Your task to perform on an android device: change keyboard looks Image 0: 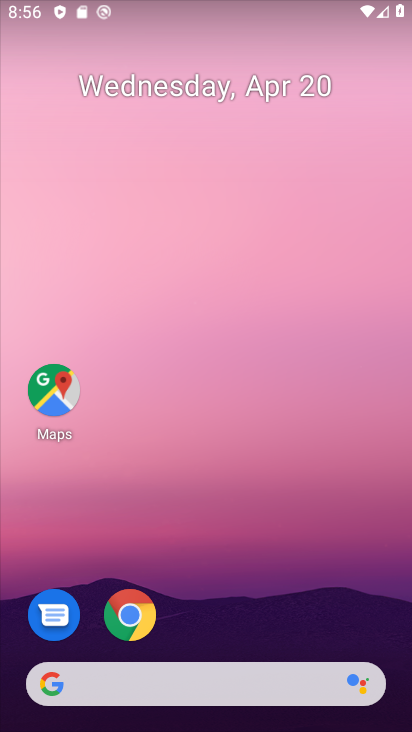
Step 0: drag from (205, 614) to (251, 138)
Your task to perform on an android device: change keyboard looks Image 1: 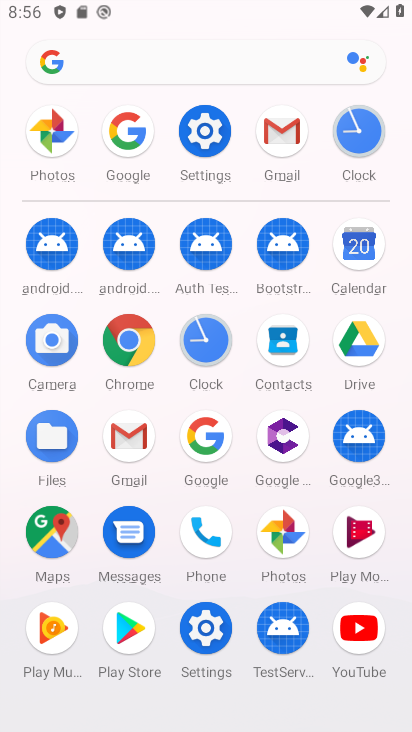
Step 1: click (206, 135)
Your task to perform on an android device: change keyboard looks Image 2: 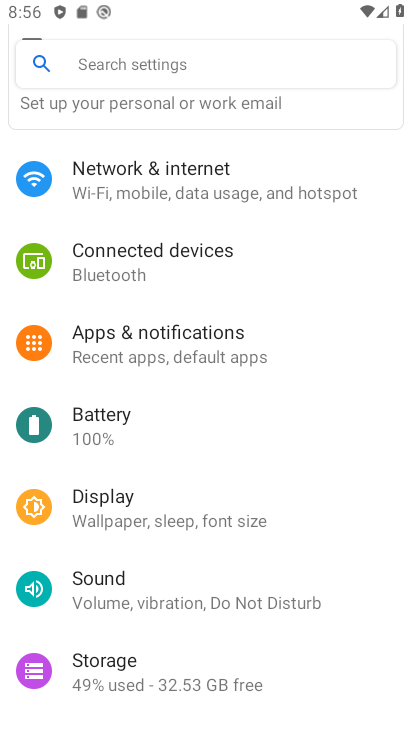
Step 2: drag from (174, 465) to (213, 360)
Your task to perform on an android device: change keyboard looks Image 3: 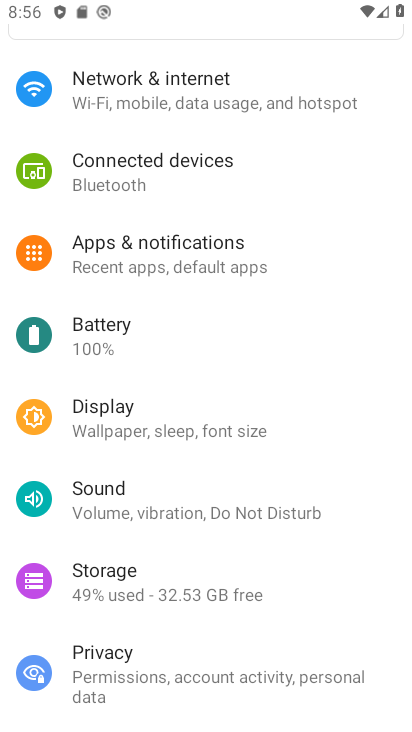
Step 3: drag from (184, 506) to (225, 433)
Your task to perform on an android device: change keyboard looks Image 4: 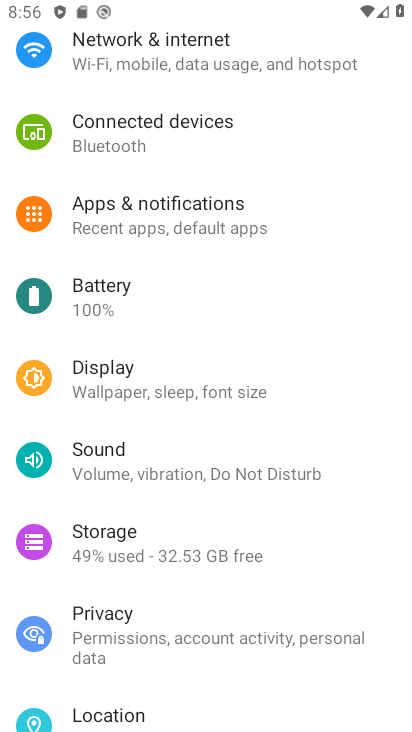
Step 4: drag from (179, 511) to (222, 420)
Your task to perform on an android device: change keyboard looks Image 5: 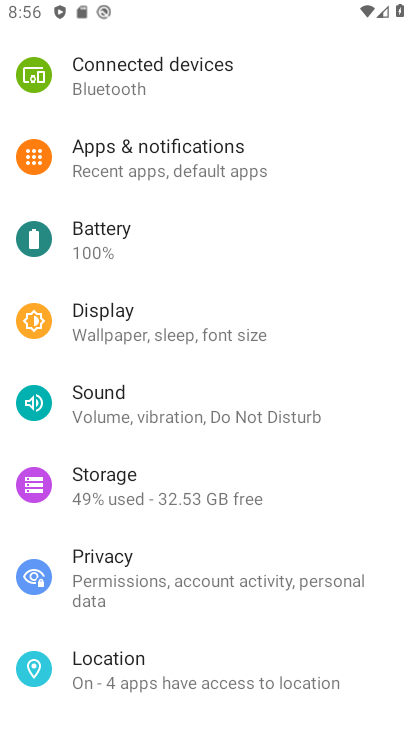
Step 5: drag from (158, 540) to (224, 448)
Your task to perform on an android device: change keyboard looks Image 6: 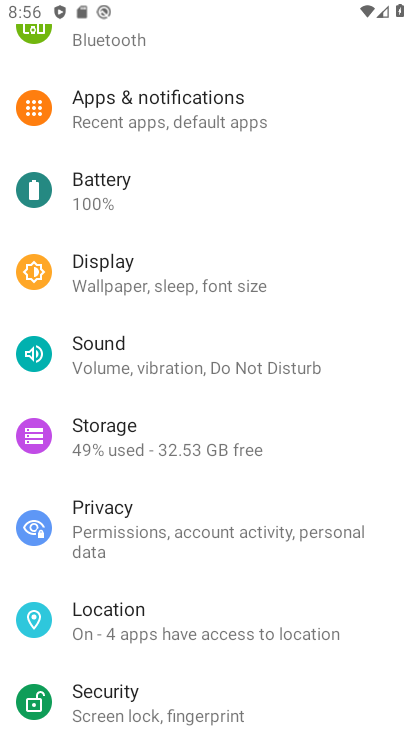
Step 6: drag from (153, 564) to (206, 464)
Your task to perform on an android device: change keyboard looks Image 7: 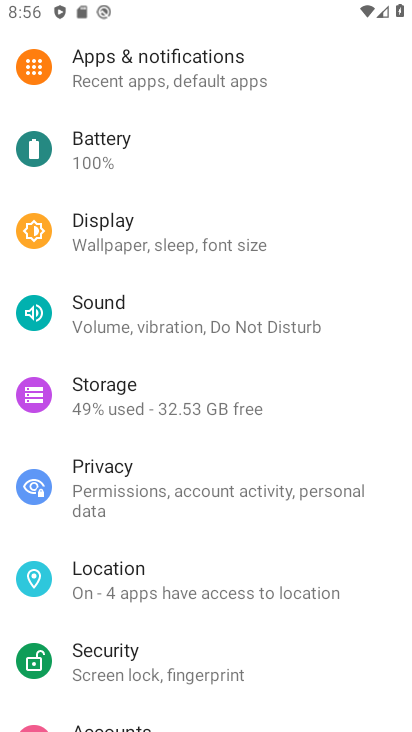
Step 7: drag from (156, 551) to (235, 441)
Your task to perform on an android device: change keyboard looks Image 8: 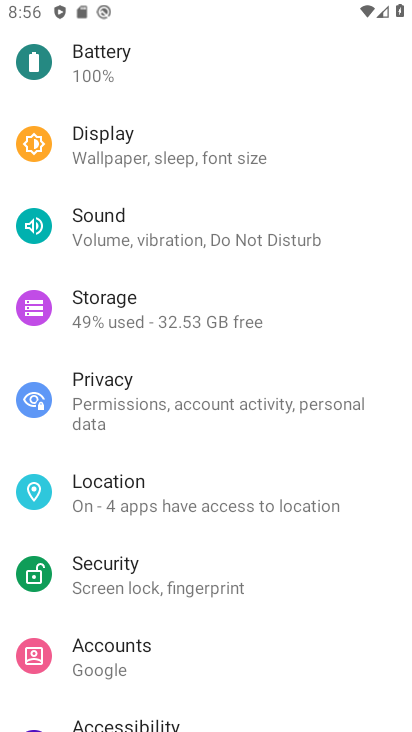
Step 8: drag from (167, 553) to (214, 475)
Your task to perform on an android device: change keyboard looks Image 9: 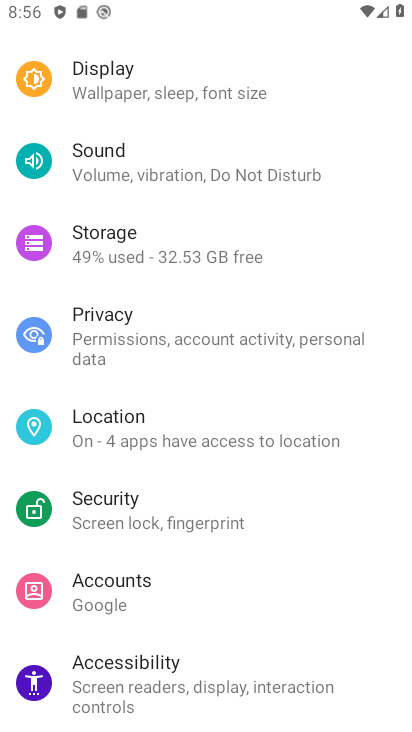
Step 9: drag from (190, 555) to (254, 464)
Your task to perform on an android device: change keyboard looks Image 10: 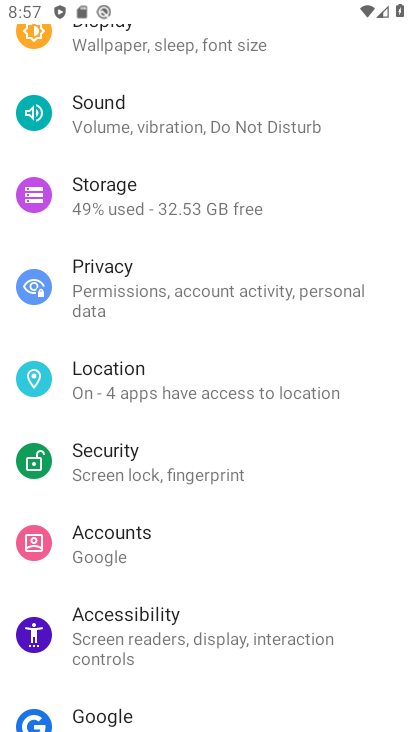
Step 10: drag from (144, 584) to (215, 496)
Your task to perform on an android device: change keyboard looks Image 11: 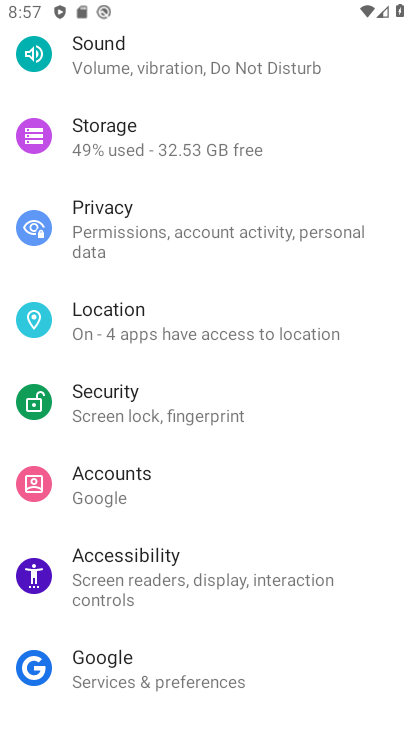
Step 11: drag from (144, 621) to (206, 509)
Your task to perform on an android device: change keyboard looks Image 12: 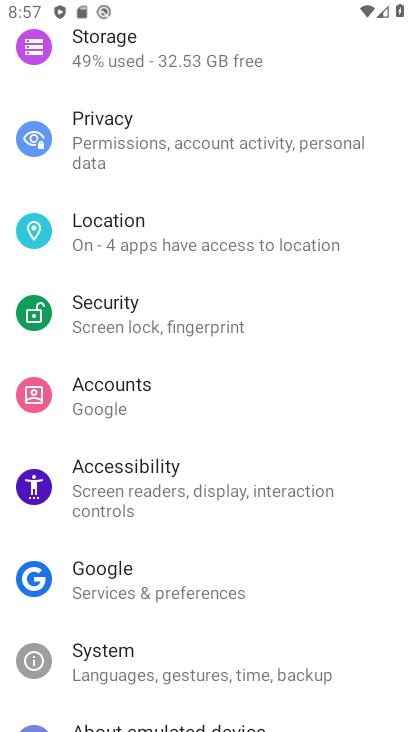
Step 12: drag from (163, 569) to (251, 468)
Your task to perform on an android device: change keyboard looks Image 13: 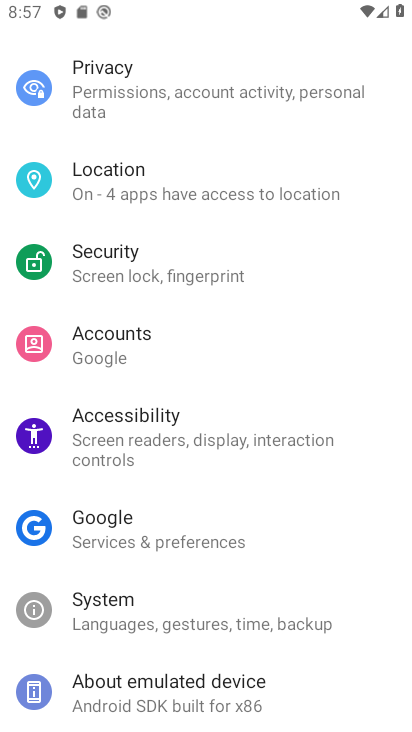
Step 13: click (156, 624)
Your task to perform on an android device: change keyboard looks Image 14: 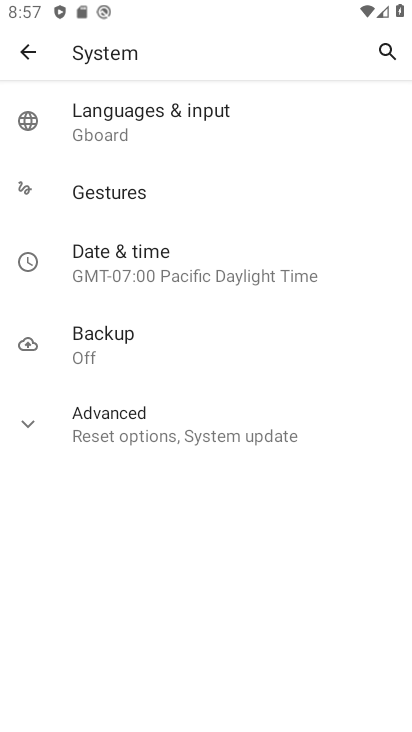
Step 14: click (203, 114)
Your task to perform on an android device: change keyboard looks Image 15: 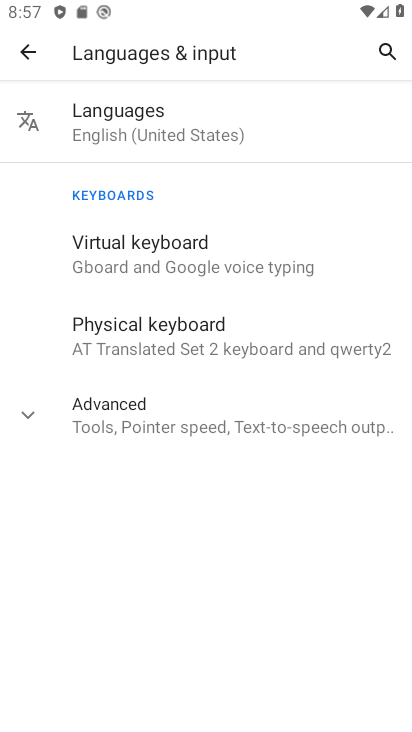
Step 15: click (147, 251)
Your task to perform on an android device: change keyboard looks Image 16: 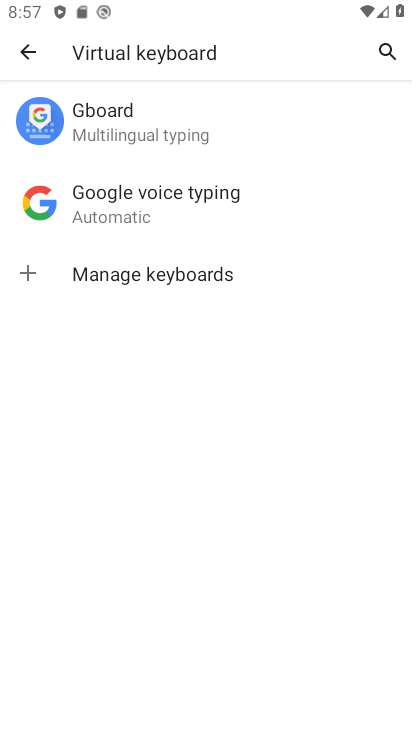
Step 16: click (136, 141)
Your task to perform on an android device: change keyboard looks Image 17: 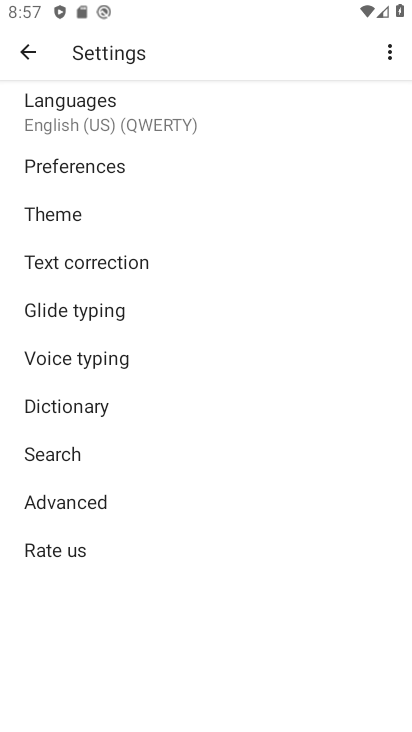
Step 17: click (58, 216)
Your task to perform on an android device: change keyboard looks Image 18: 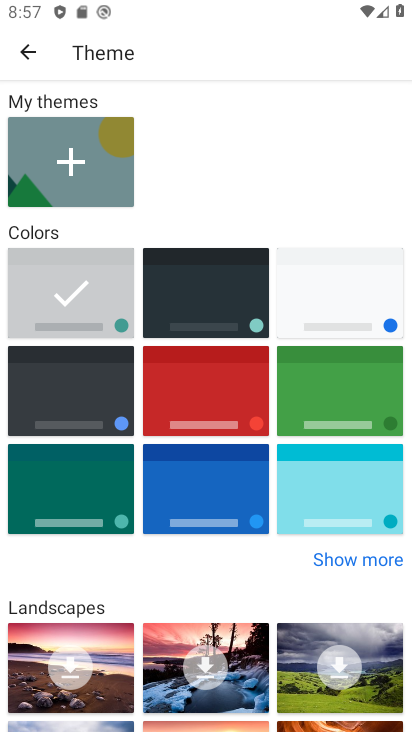
Step 18: drag from (193, 568) to (246, 378)
Your task to perform on an android device: change keyboard looks Image 19: 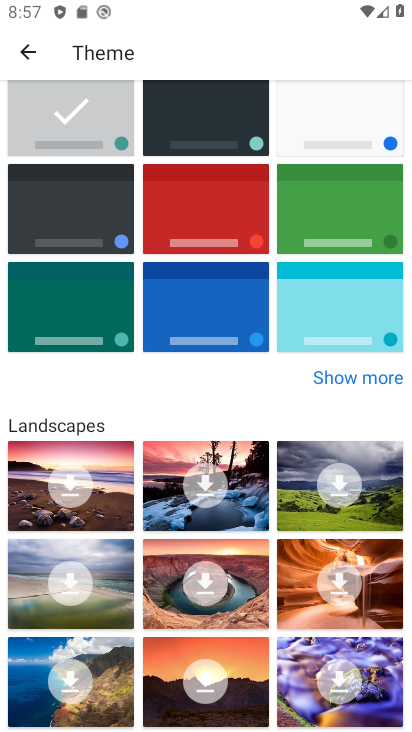
Step 19: click (324, 312)
Your task to perform on an android device: change keyboard looks Image 20: 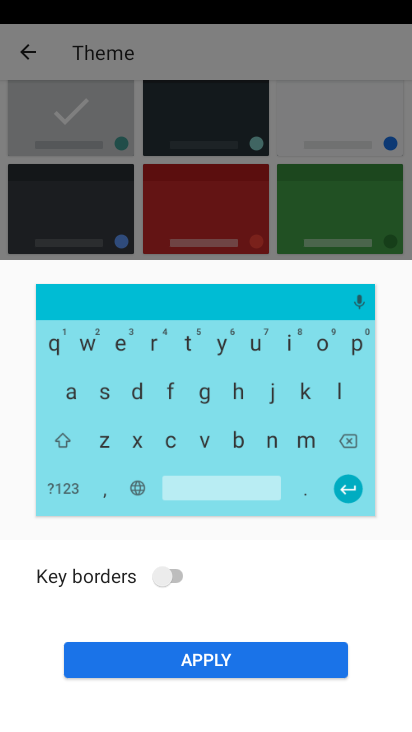
Step 20: click (164, 573)
Your task to perform on an android device: change keyboard looks Image 21: 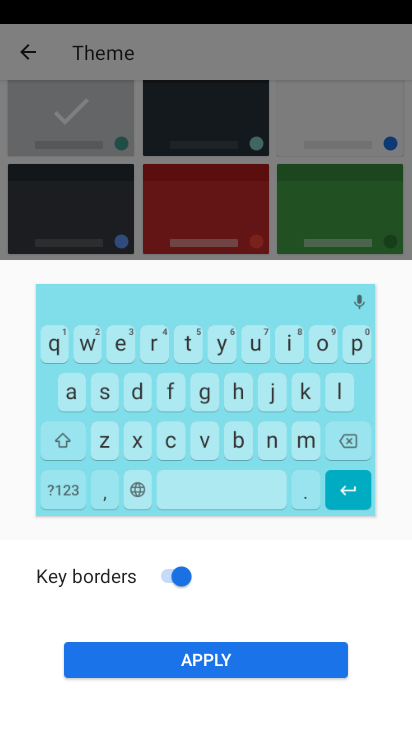
Step 21: click (200, 659)
Your task to perform on an android device: change keyboard looks Image 22: 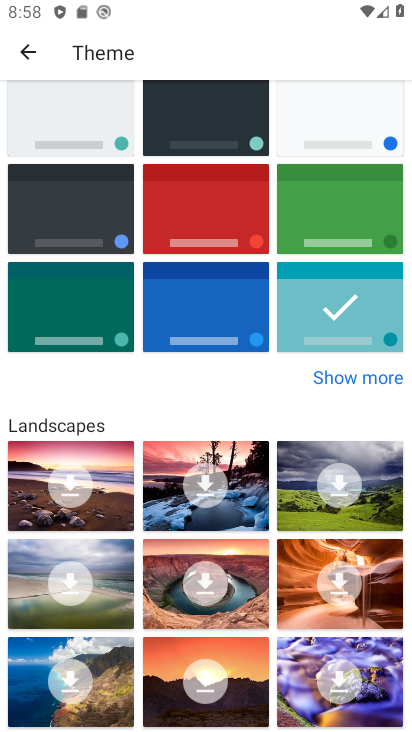
Step 22: task complete